Your task to perform on an android device: toggle airplane mode Image 0: 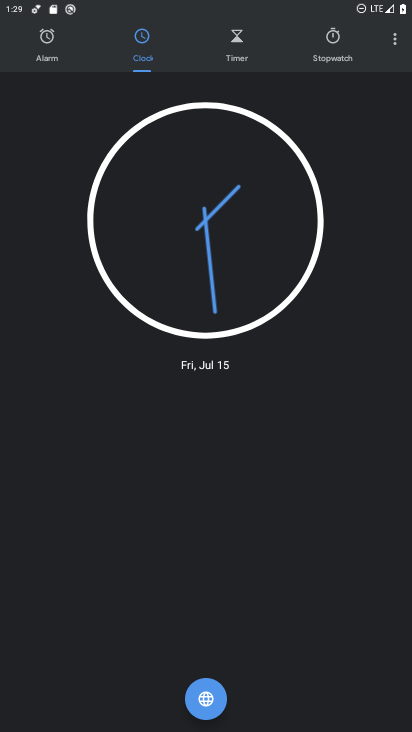
Step 0: press home button
Your task to perform on an android device: toggle airplane mode Image 1: 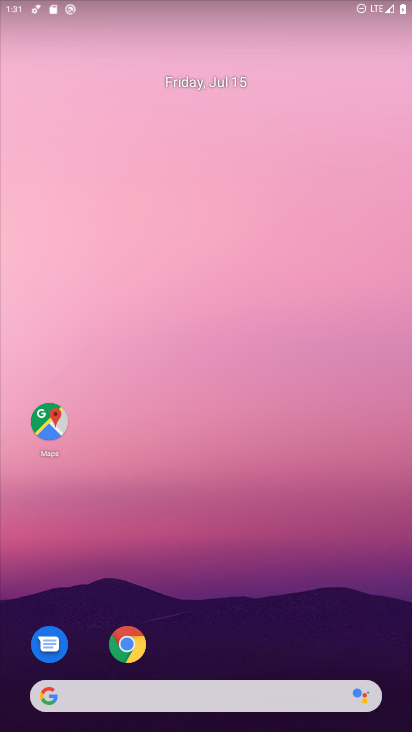
Step 1: task complete